Your task to perform on an android device: Search for hotels in San Diego Image 0: 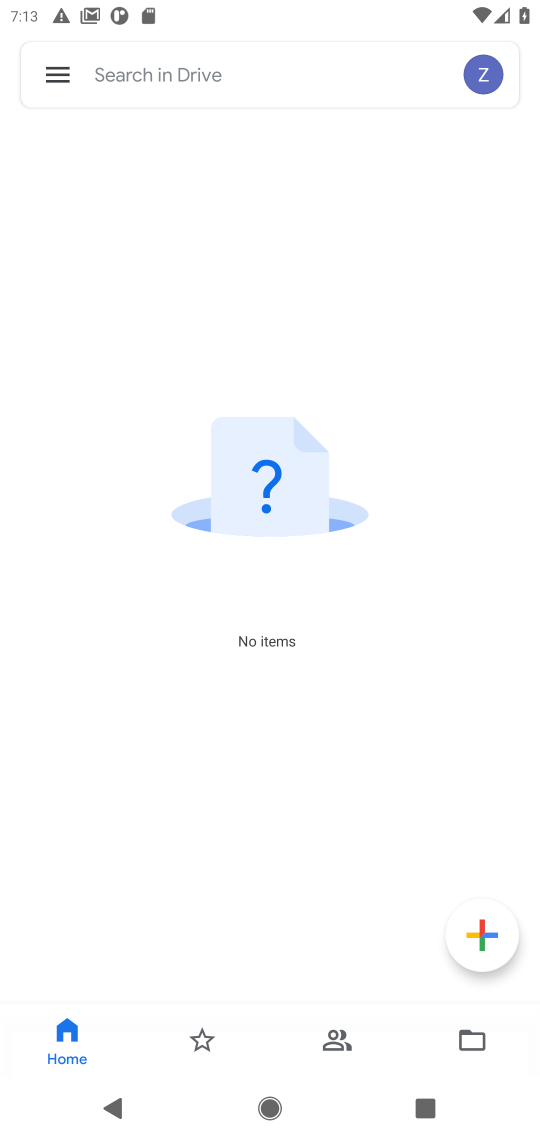
Step 0: press home button
Your task to perform on an android device: Search for hotels in San Diego Image 1: 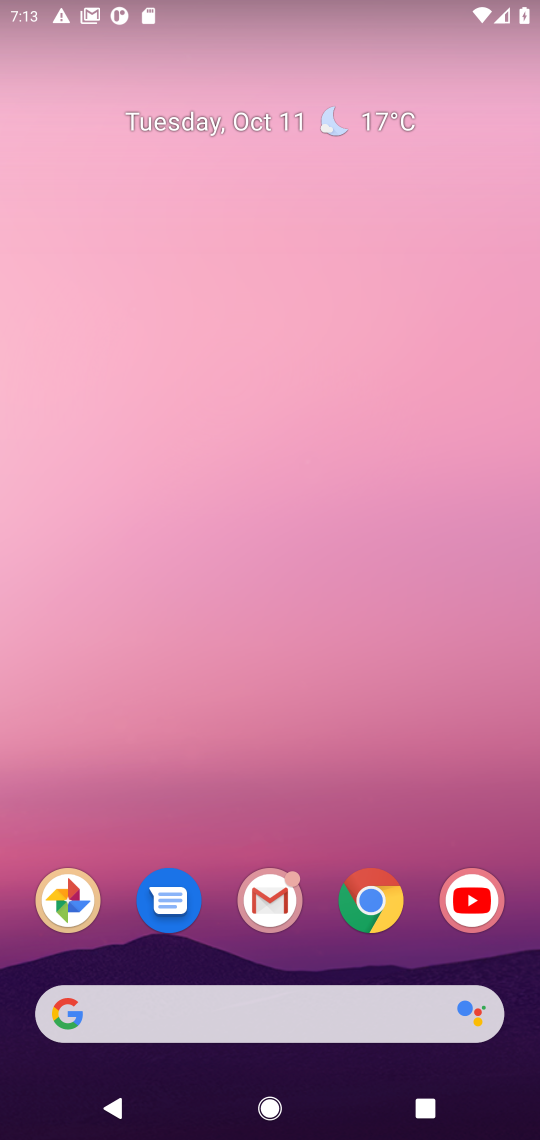
Step 1: click (368, 893)
Your task to perform on an android device: Search for hotels in San Diego Image 2: 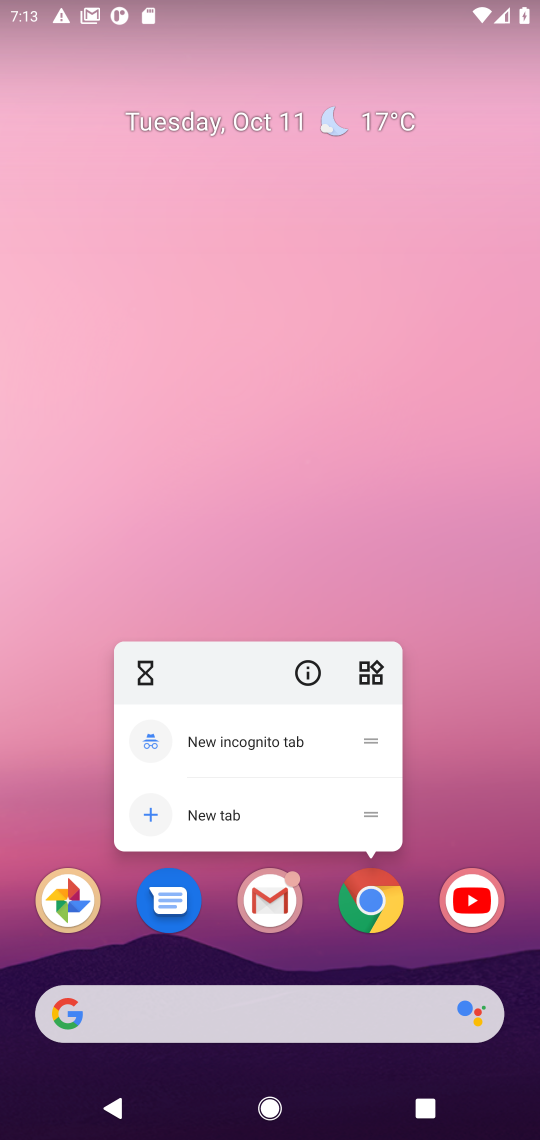
Step 2: click (367, 901)
Your task to perform on an android device: Search for hotels in San Diego Image 3: 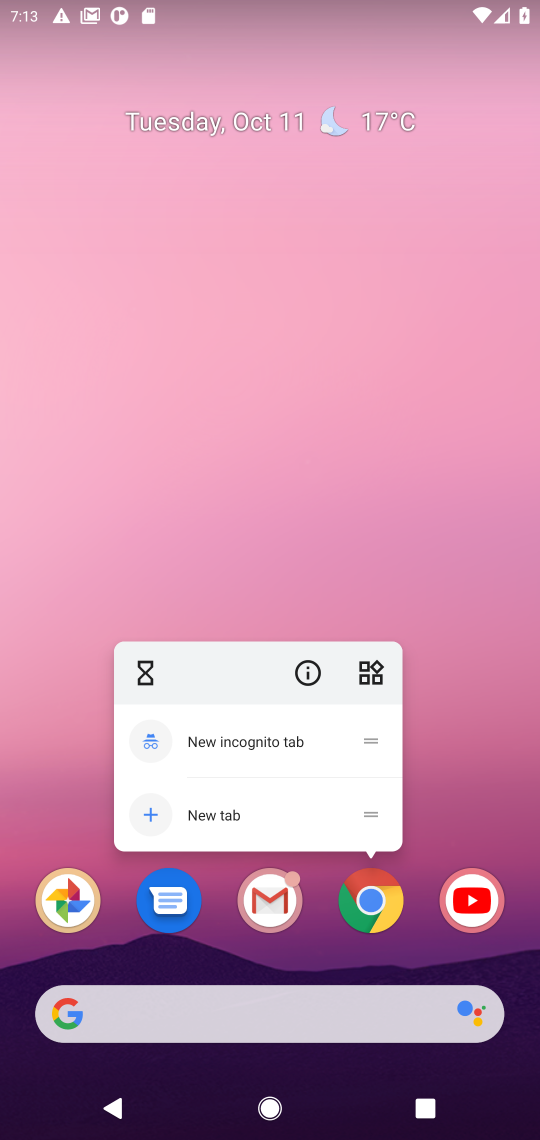
Step 3: click (367, 908)
Your task to perform on an android device: Search for hotels in San Diego Image 4: 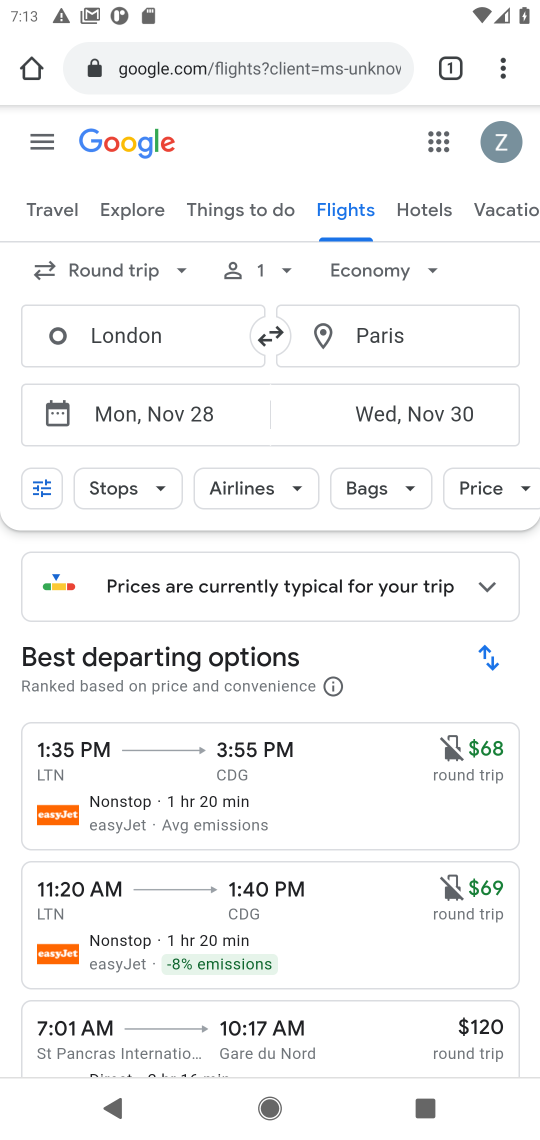
Step 4: click (297, 69)
Your task to perform on an android device: Search for hotels in San Diego Image 5: 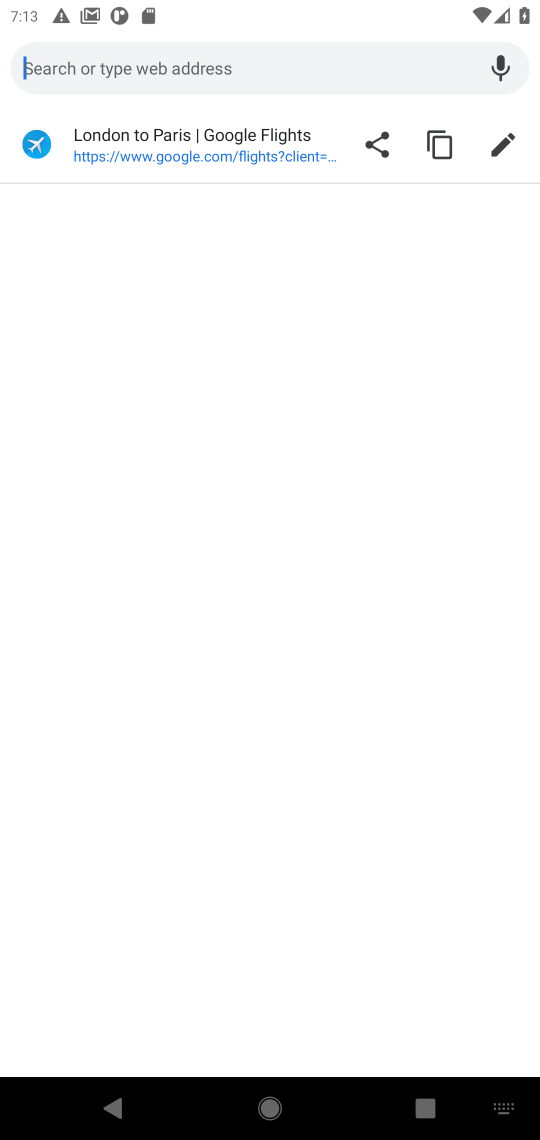
Step 5: type "hotels in San Diego"
Your task to perform on an android device: Search for hotels in San Diego Image 6: 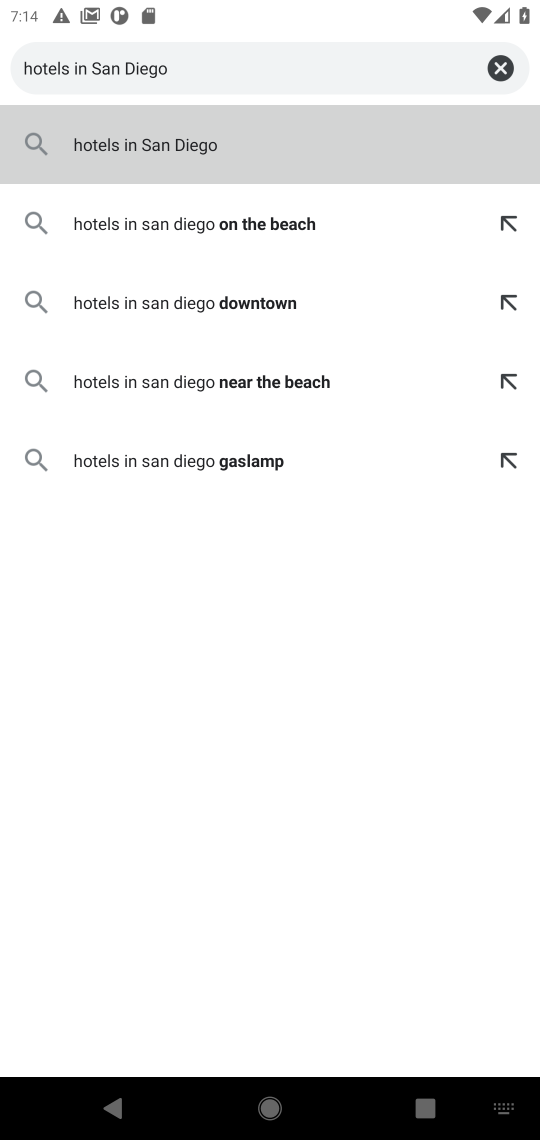
Step 6: press enter
Your task to perform on an android device: Search for hotels in San Diego Image 7: 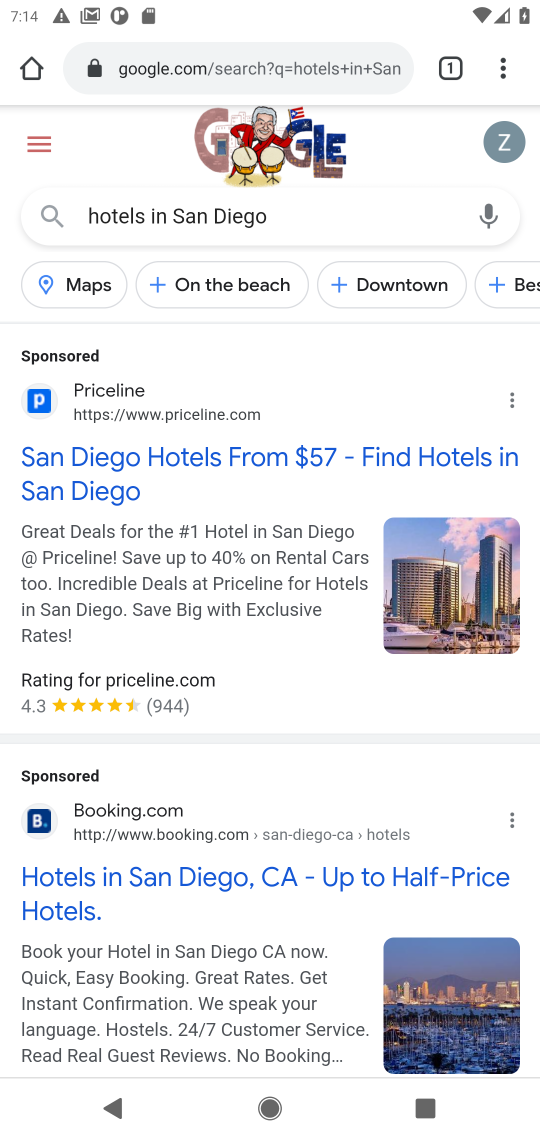
Step 7: drag from (188, 947) to (350, 138)
Your task to perform on an android device: Search for hotels in San Diego Image 8: 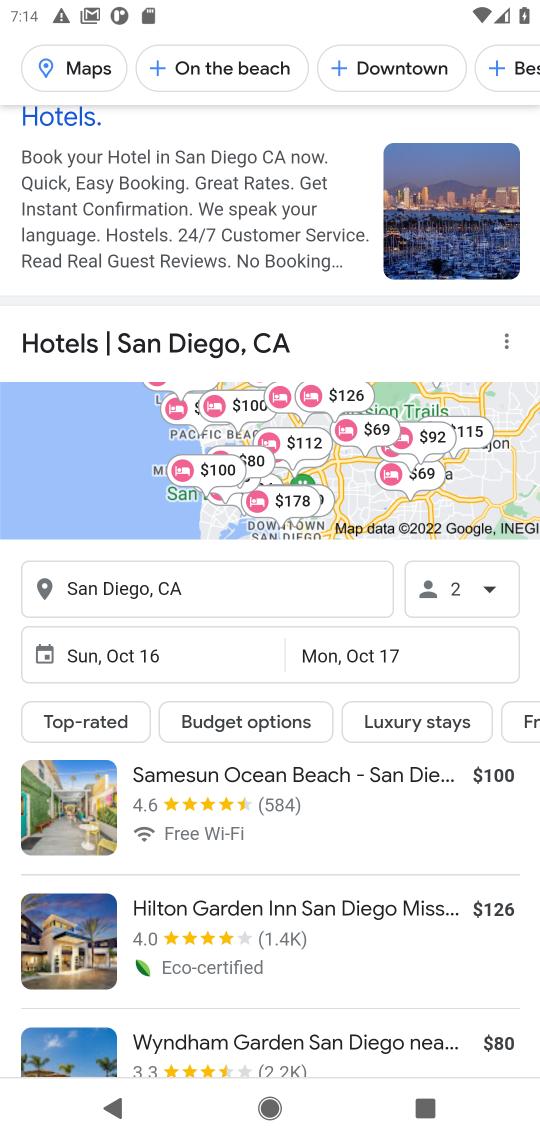
Step 8: drag from (240, 817) to (406, 102)
Your task to perform on an android device: Search for hotels in San Diego Image 9: 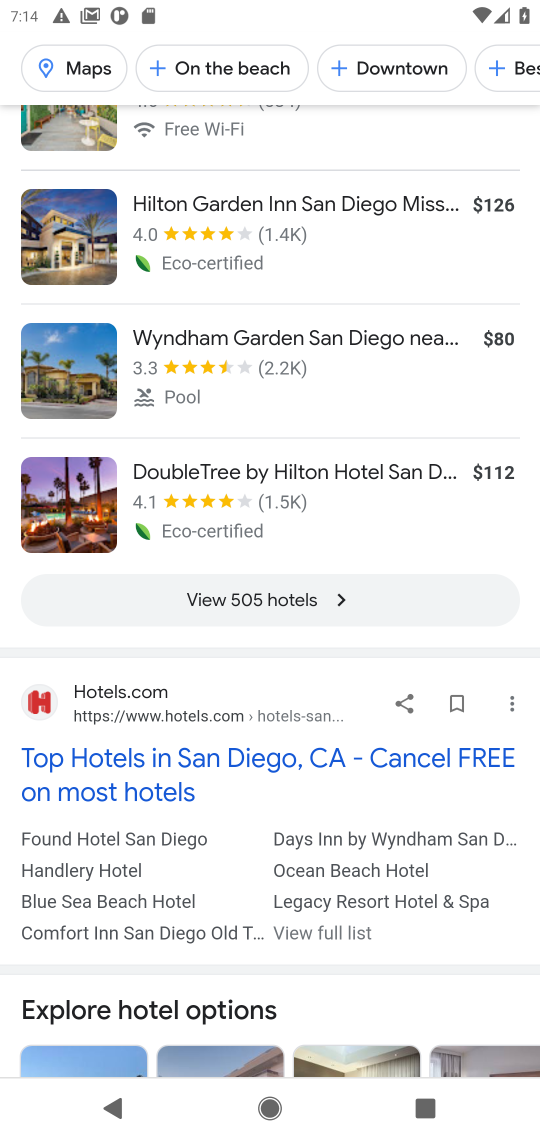
Step 9: click (306, 602)
Your task to perform on an android device: Search for hotels in San Diego Image 10: 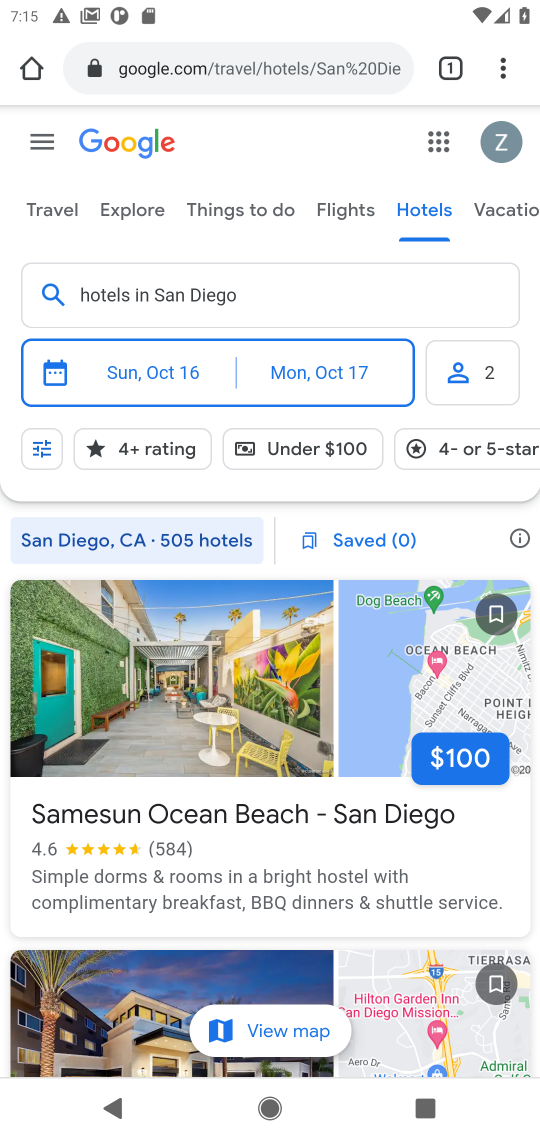
Step 10: task complete